Your task to perform on an android device: What's on my calendar today? Image 0: 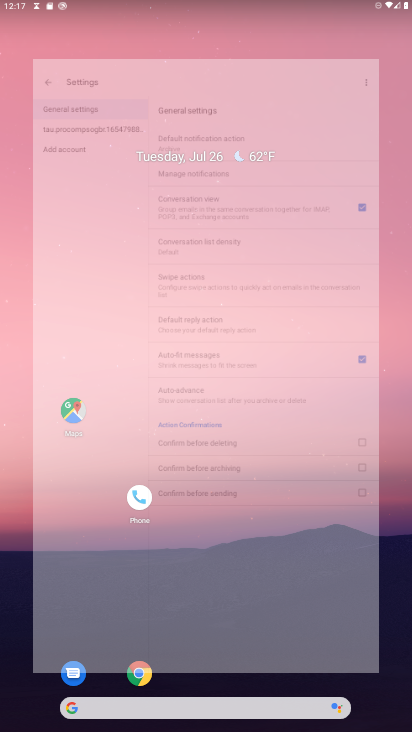
Step 0: press home button
Your task to perform on an android device: What's on my calendar today? Image 1: 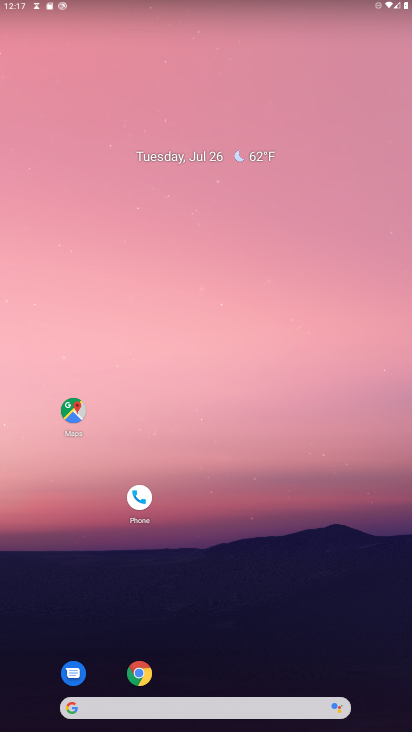
Step 1: drag from (215, 559) to (265, 69)
Your task to perform on an android device: What's on my calendar today? Image 2: 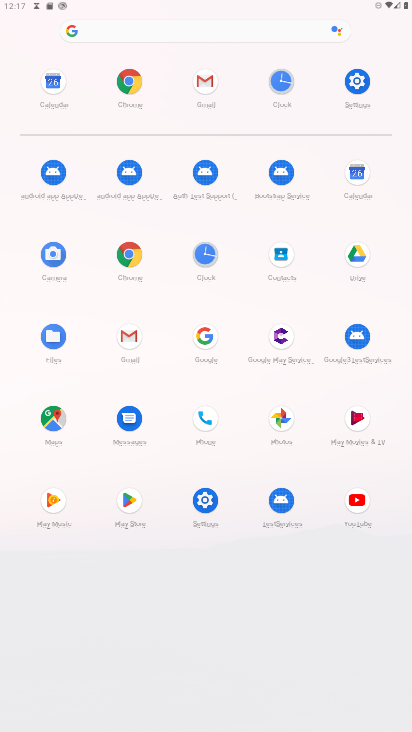
Step 2: click (359, 177)
Your task to perform on an android device: What's on my calendar today? Image 3: 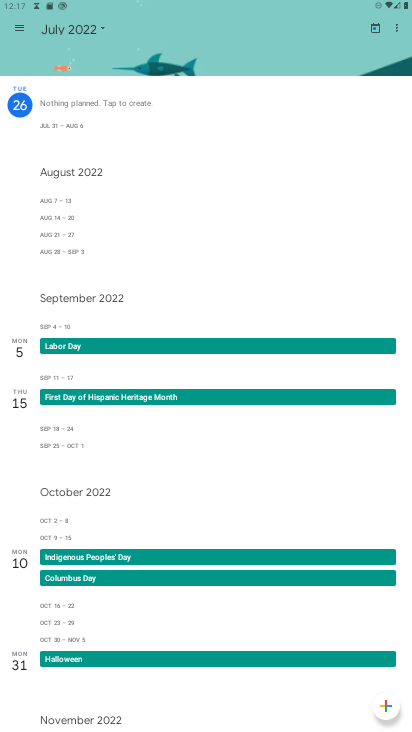
Step 3: click (104, 25)
Your task to perform on an android device: What's on my calendar today? Image 4: 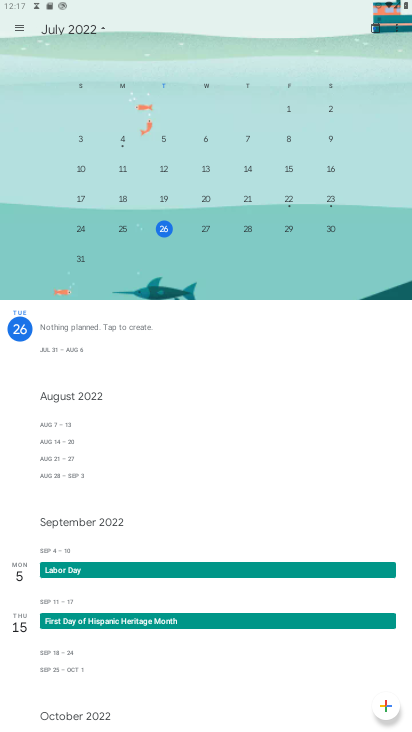
Step 4: click (173, 230)
Your task to perform on an android device: What's on my calendar today? Image 5: 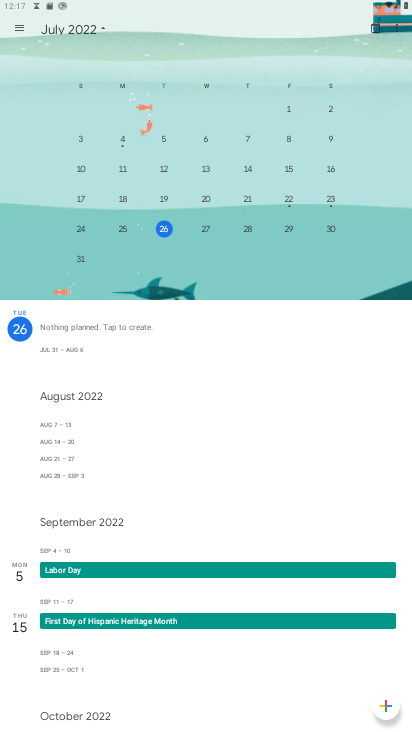
Step 5: task complete